Your task to perform on an android device: turn on sleep mode Image 0: 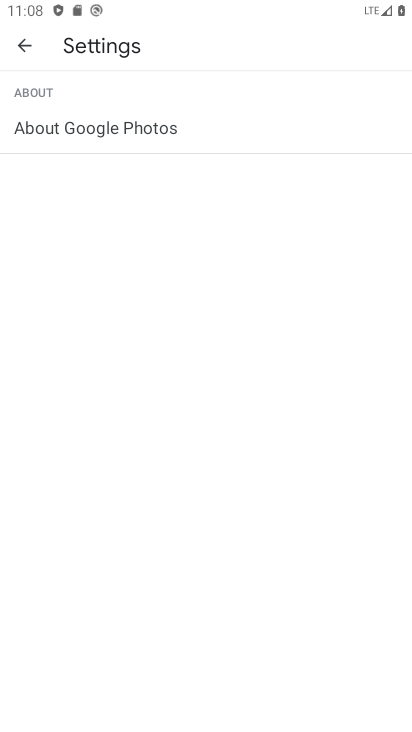
Step 0: press home button
Your task to perform on an android device: turn on sleep mode Image 1: 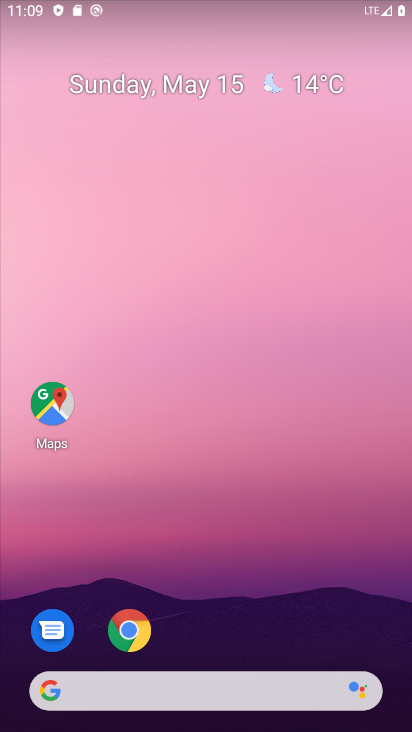
Step 1: drag from (175, 413) to (257, 274)
Your task to perform on an android device: turn on sleep mode Image 2: 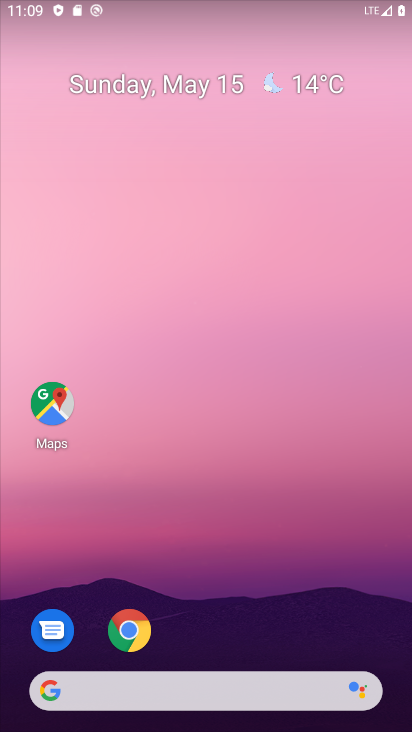
Step 2: drag from (5, 717) to (273, 248)
Your task to perform on an android device: turn on sleep mode Image 3: 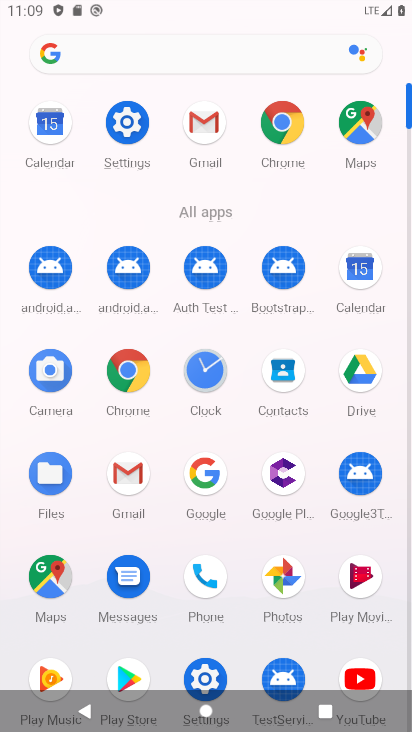
Step 3: click (128, 132)
Your task to perform on an android device: turn on sleep mode Image 4: 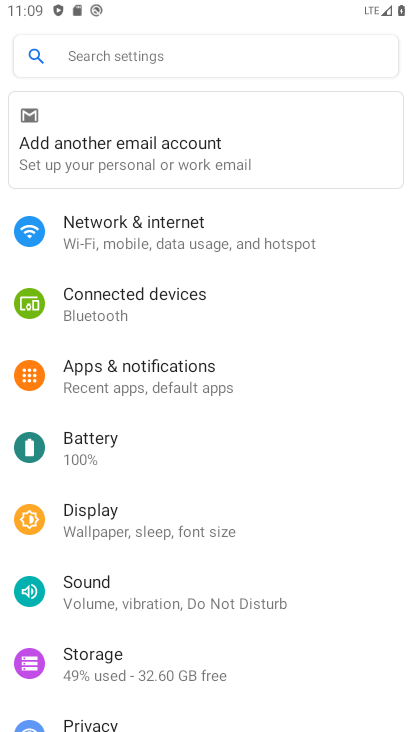
Step 4: task complete